Your task to perform on an android device: Find coffee shops on Maps Image 0: 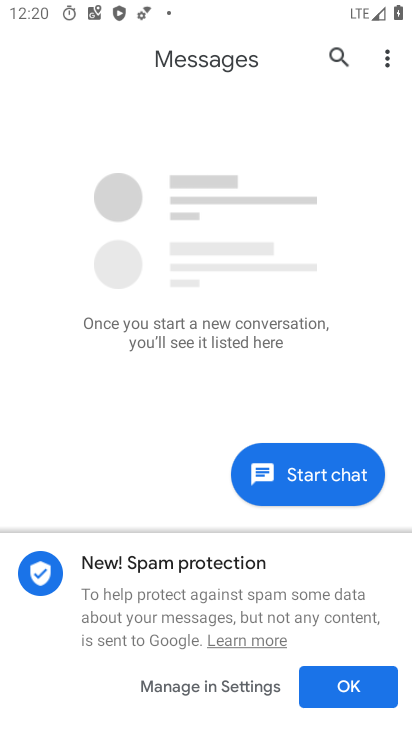
Step 0: press home button
Your task to perform on an android device: Find coffee shops on Maps Image 1: 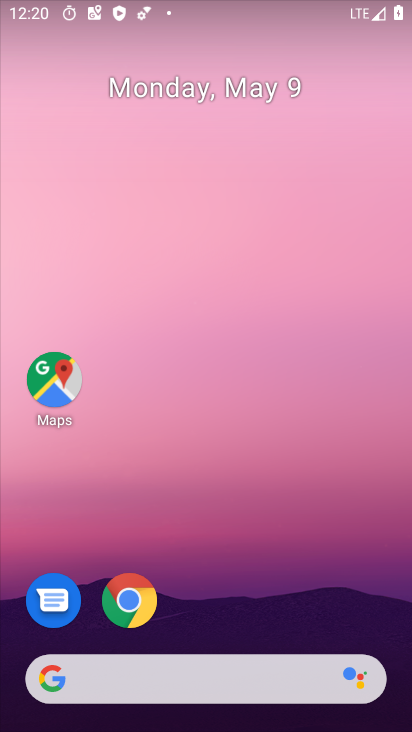
Step 1: drag from (221, 624) to (223, 294)
Your task to perform on an android device: Find coffee shops on Maps Image 2: 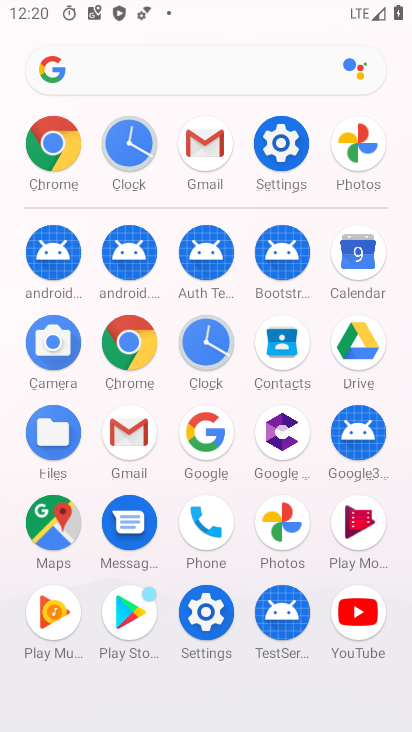
Step 2: click (62, 536)
Your task to perform on an android device: Find coffee shops on Maps Image 3: 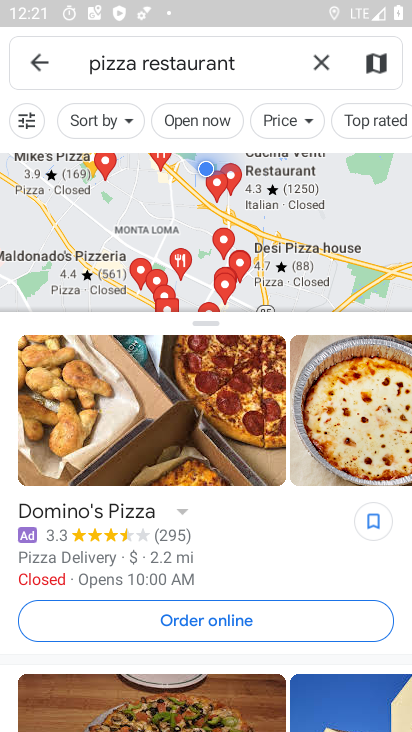
Step 3: click (320, 67)
Your task to perform on an android device: Find coffee shops on Maps Image 4: 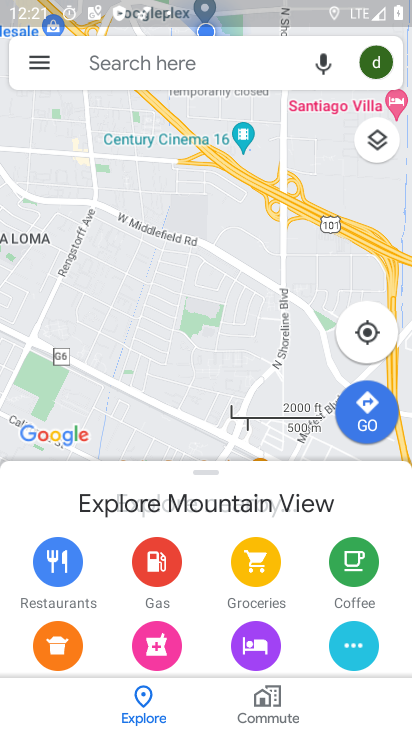
Step 4: click (175, 66)
Your task to perform on an android device: Find coffee shops on Maps Image 5: 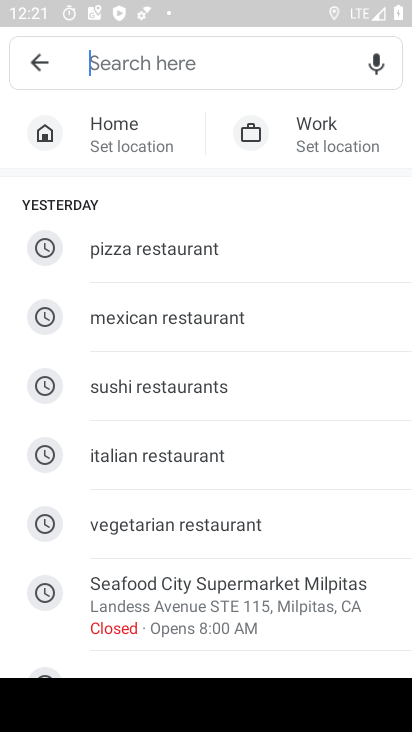
Step 5: type "coffee shops"
Your task to perform on an android device: Find coffee shops on Maps Image 6: 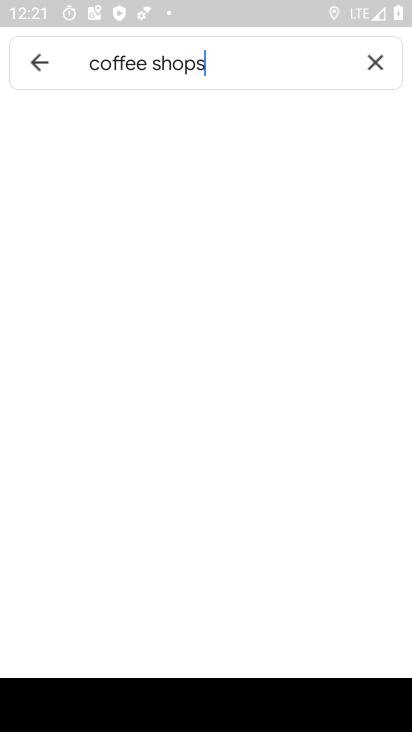
Step 6: type ""
Your task to perform on an android device: Find coffee shops on Maps Image 7: 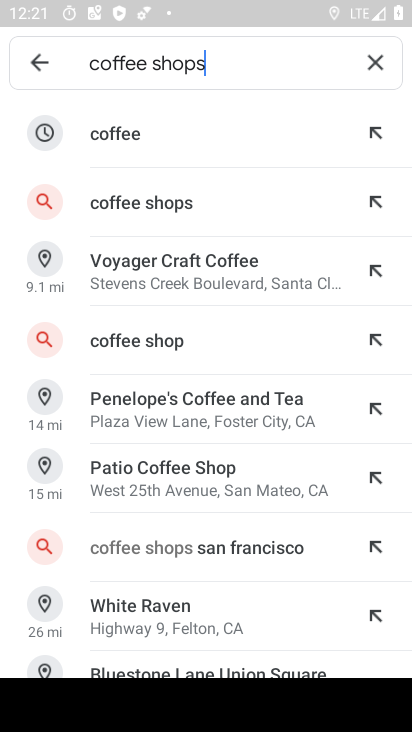
Step 7: click (192, 208)
Your task to perform on an android device: Find coffee shops on Maps Image 8: 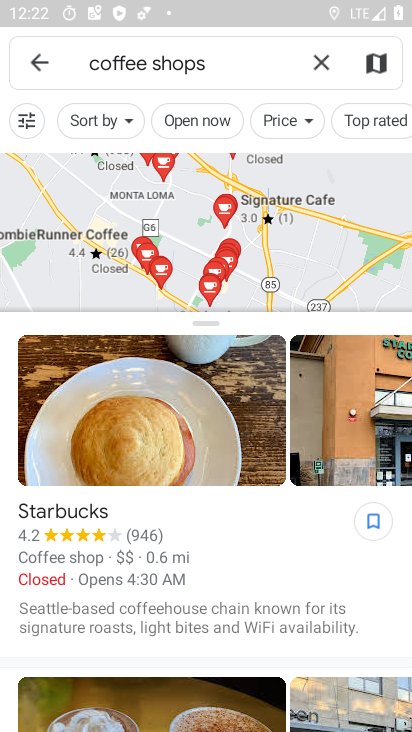
Step 8: task complete